Your task to perform on an android device: turn on improve location accuracy Image 0: 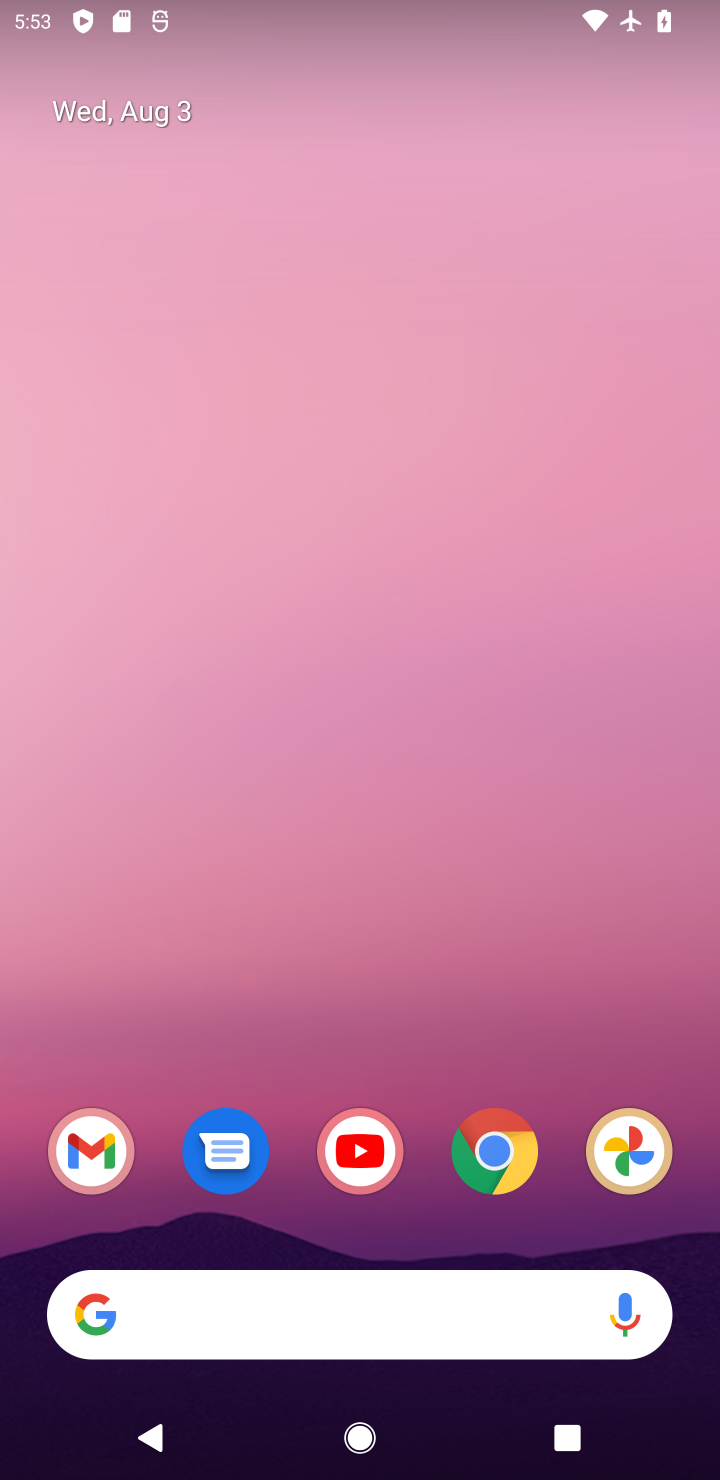
Step 0: drag from (543, 1060) to (326, 166)
Your task to perform on an android device: turn on improve location accuracy Image 1: 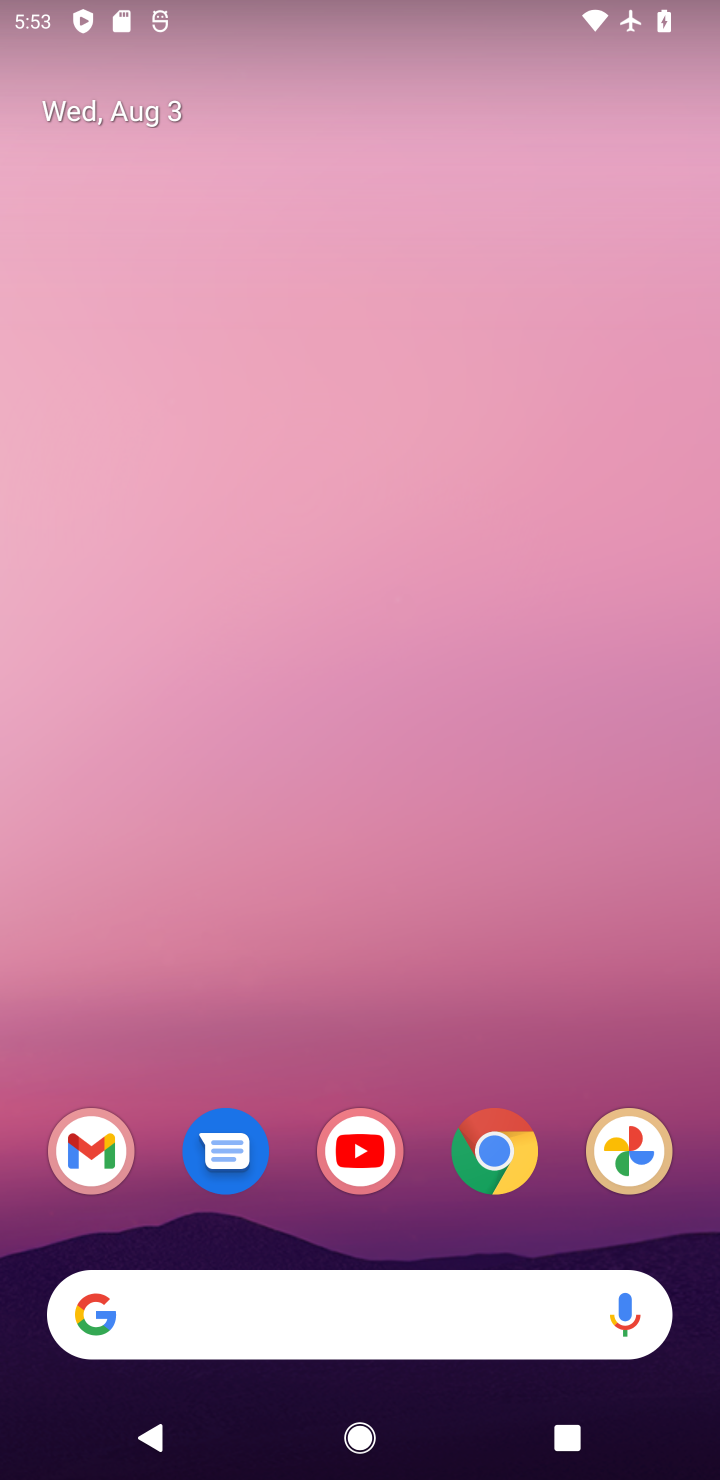
Step 1: drag from (557, 1120) to (516, 336)
Your task to perform on an android device: turn on improve location accuracy Image 2: 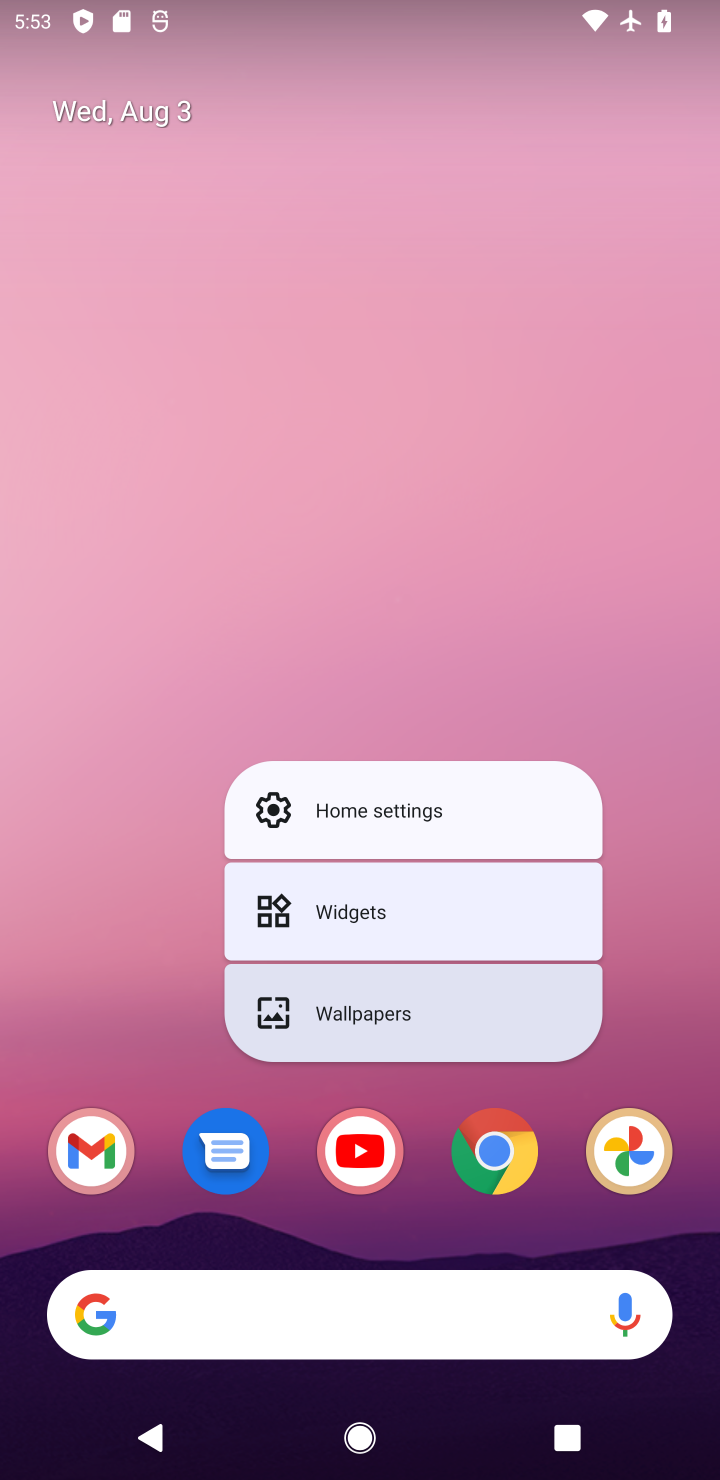
Step 2: drag from (711, 1242) to (601, 820)
Your task to perform on an android device: turn on improve location accuracy Image 3: 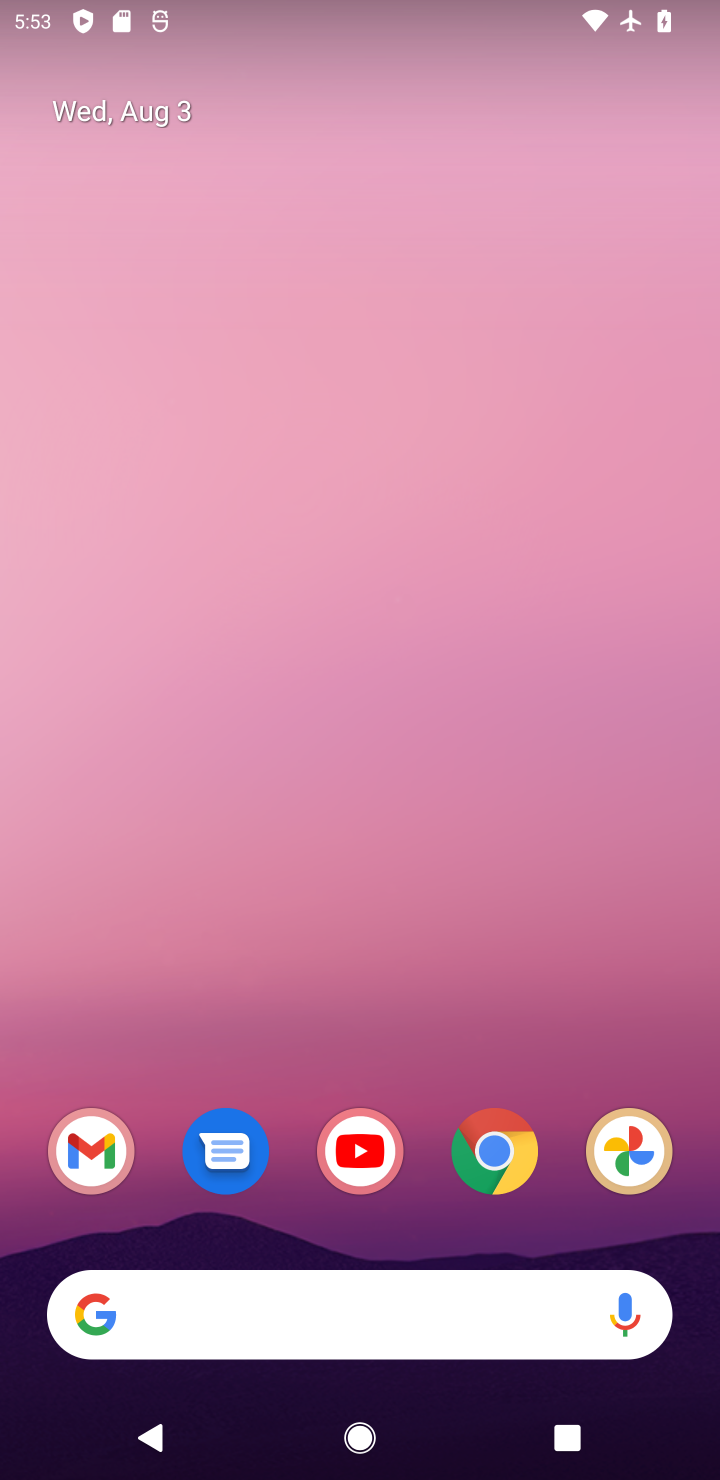
Step 3: drag from (692, 1190) to (581, 611)
Your task to perform on an android device: turn on improve location accuracy Image 4: 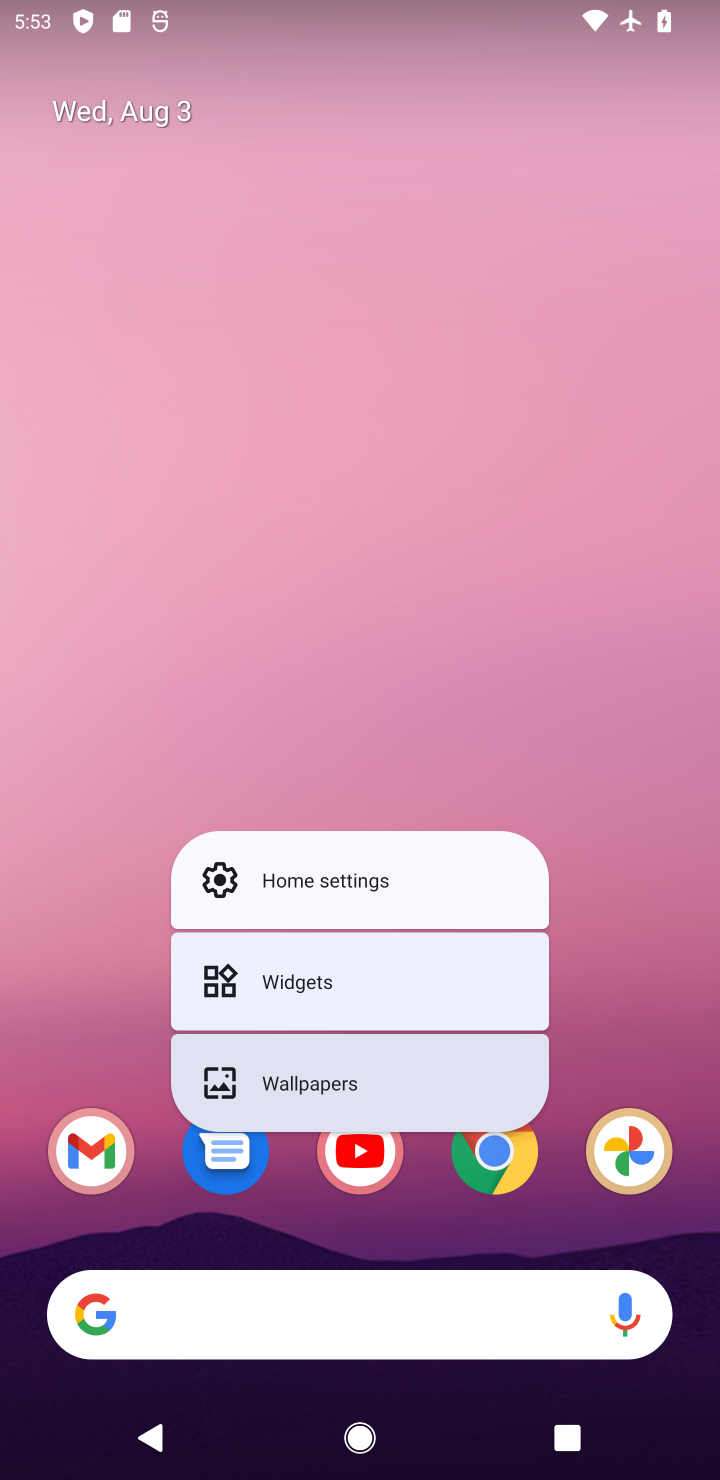
Step 4: click (675, 1021)
Your task to perform on an android device: turn on improve location accuracy Image 5: 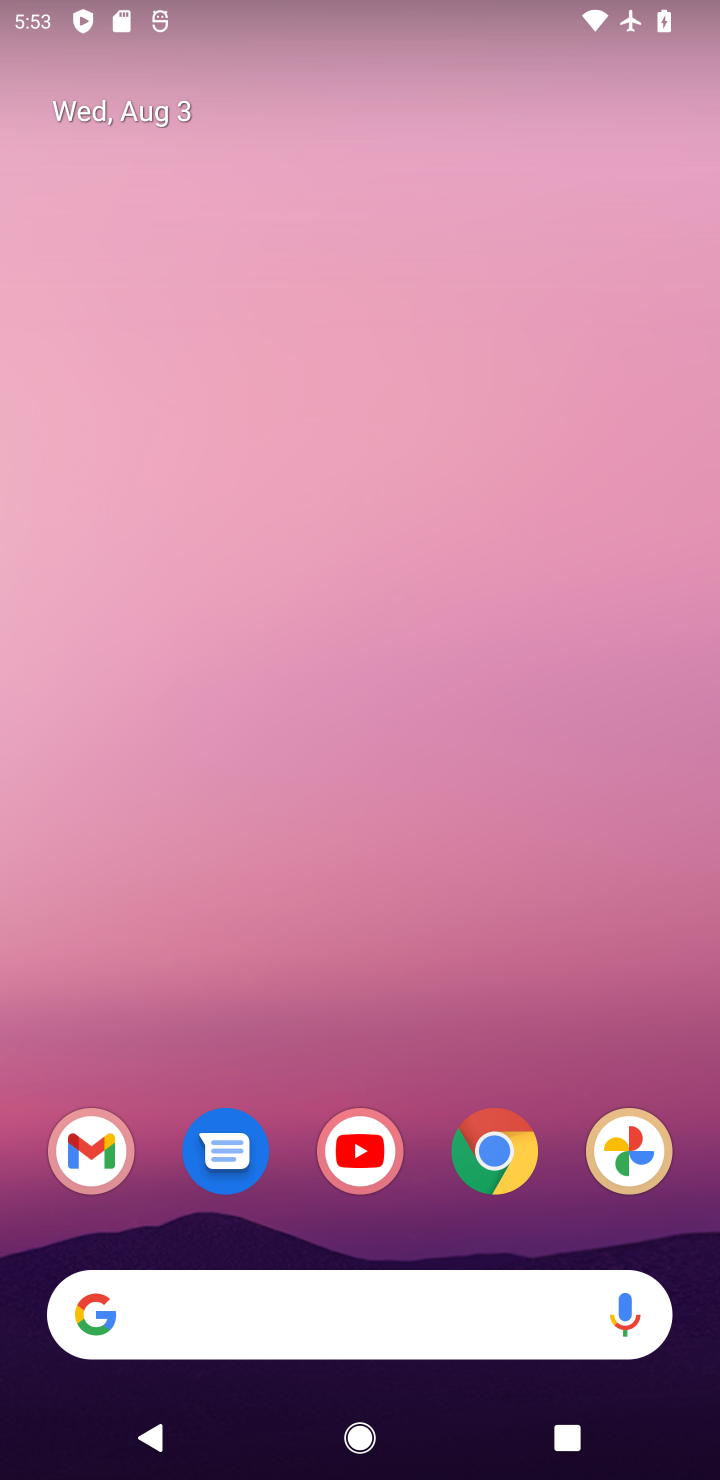
Step 5: drag from (625, 1033) to (601, 793)
Your task to perform on an android device: turn on improve location accuracy Image 6: 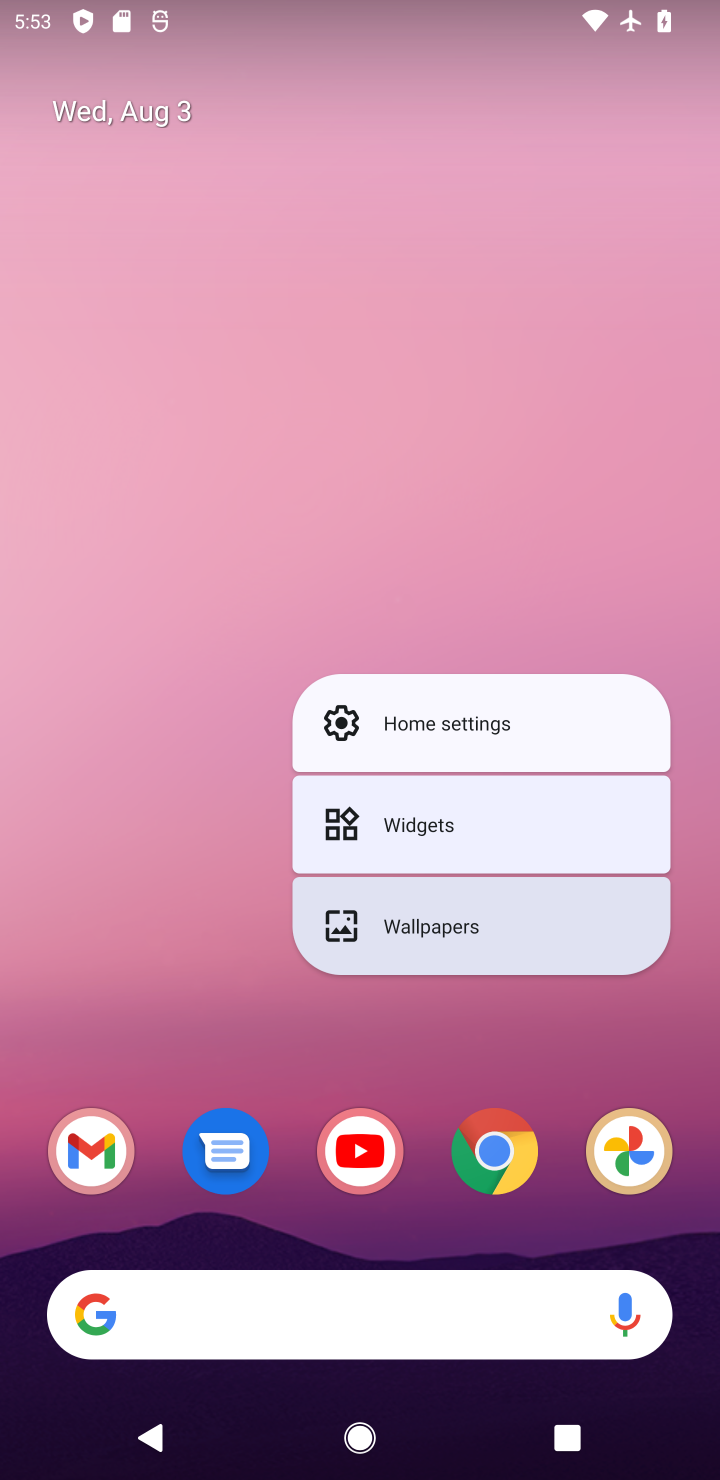
Step 6: drag from (566, 1259) to (246, 186)
Your task to perform on an android device: turn on improve location accuracy Image 7: 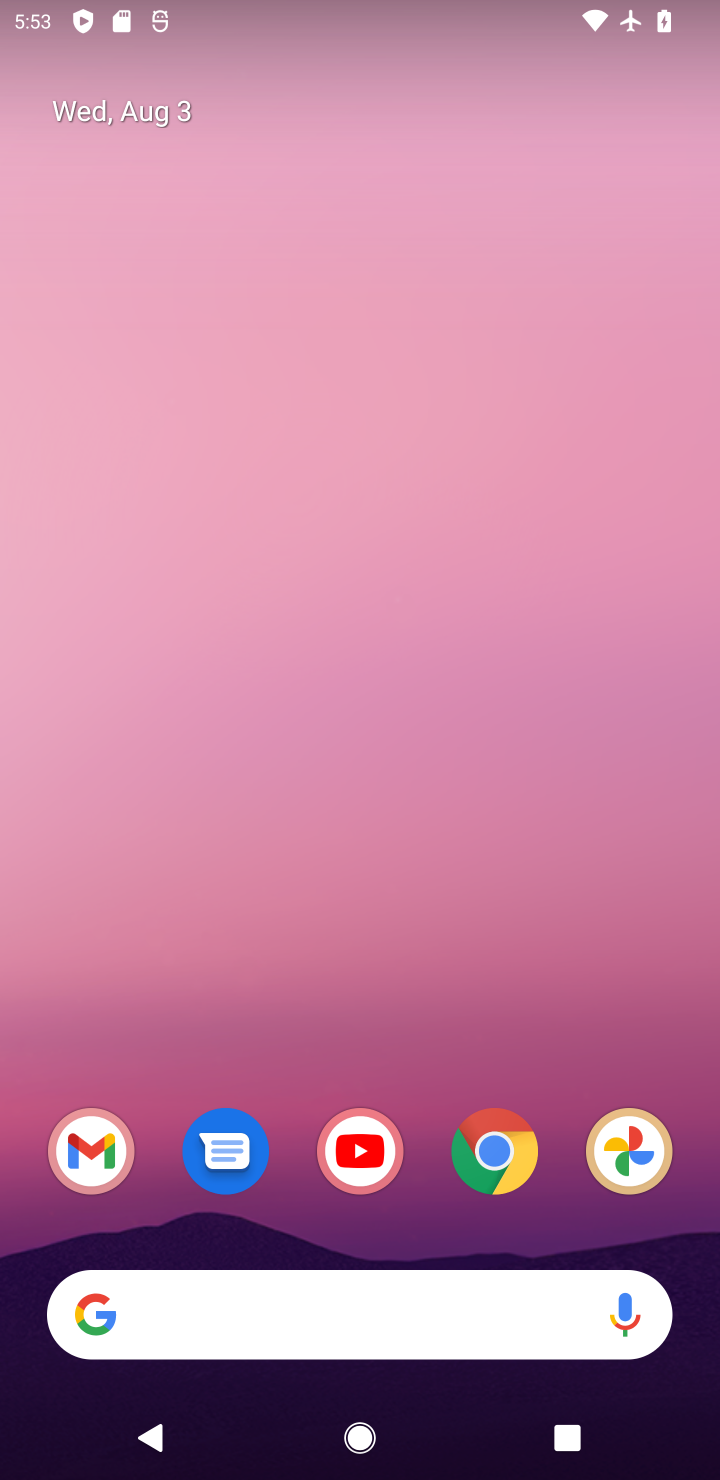
Step 7: drag from (421, 1122) to (291, 90)
Your task to perform on an android device: turn on improve location accuracy Image 8: 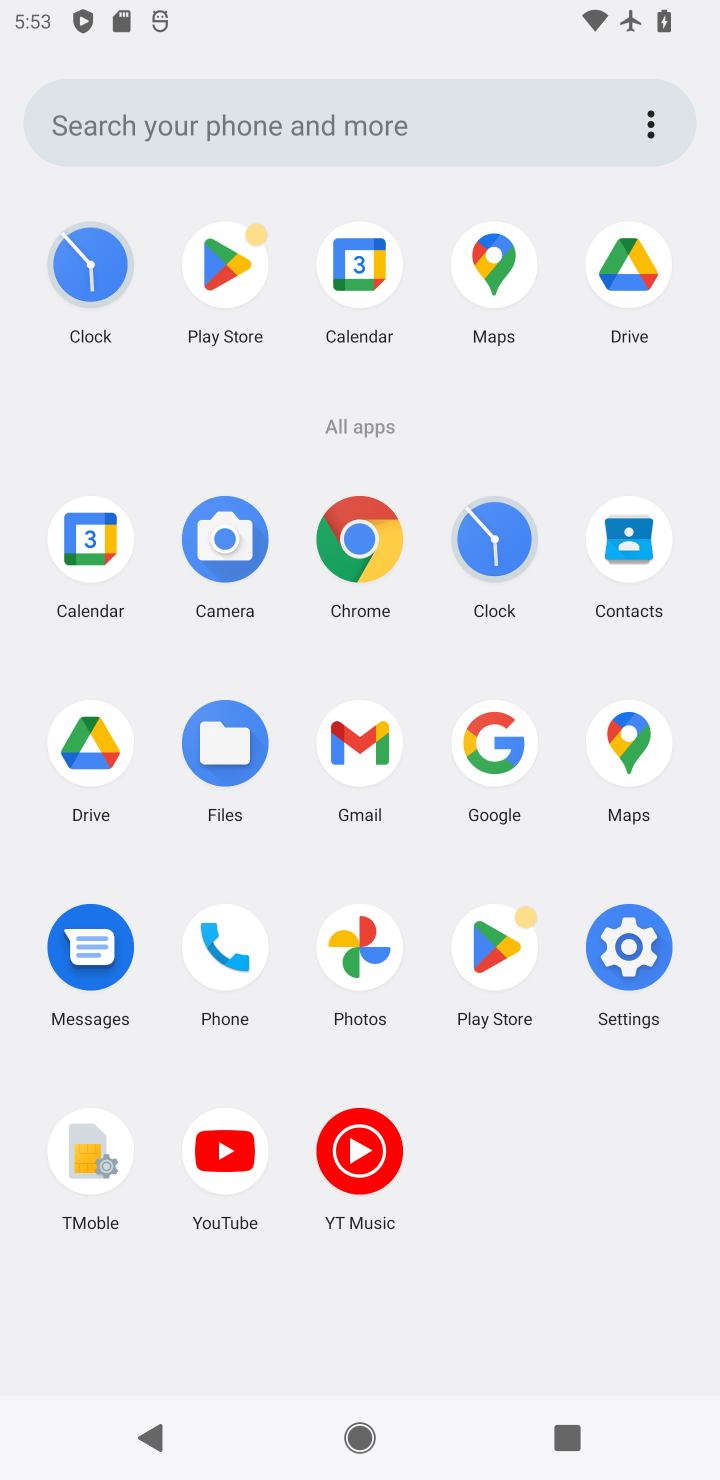
Step 8: click (619, 917)
Your task to perform on an android device: turn on improve location accuracy Image 9: 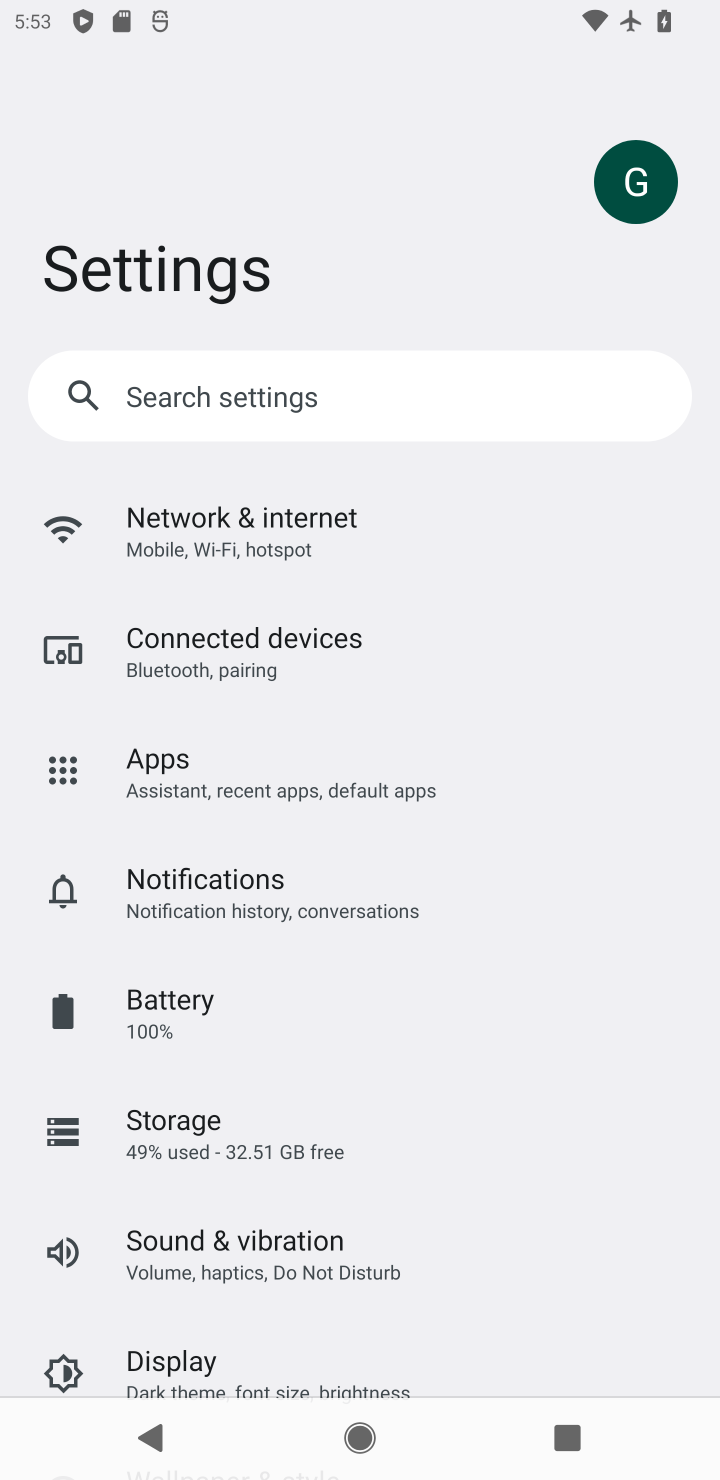
Step 9: drag from (390, 1336) to (342, 611)
Your task to perform on an android device: turn on improve location accuracy Image 10: 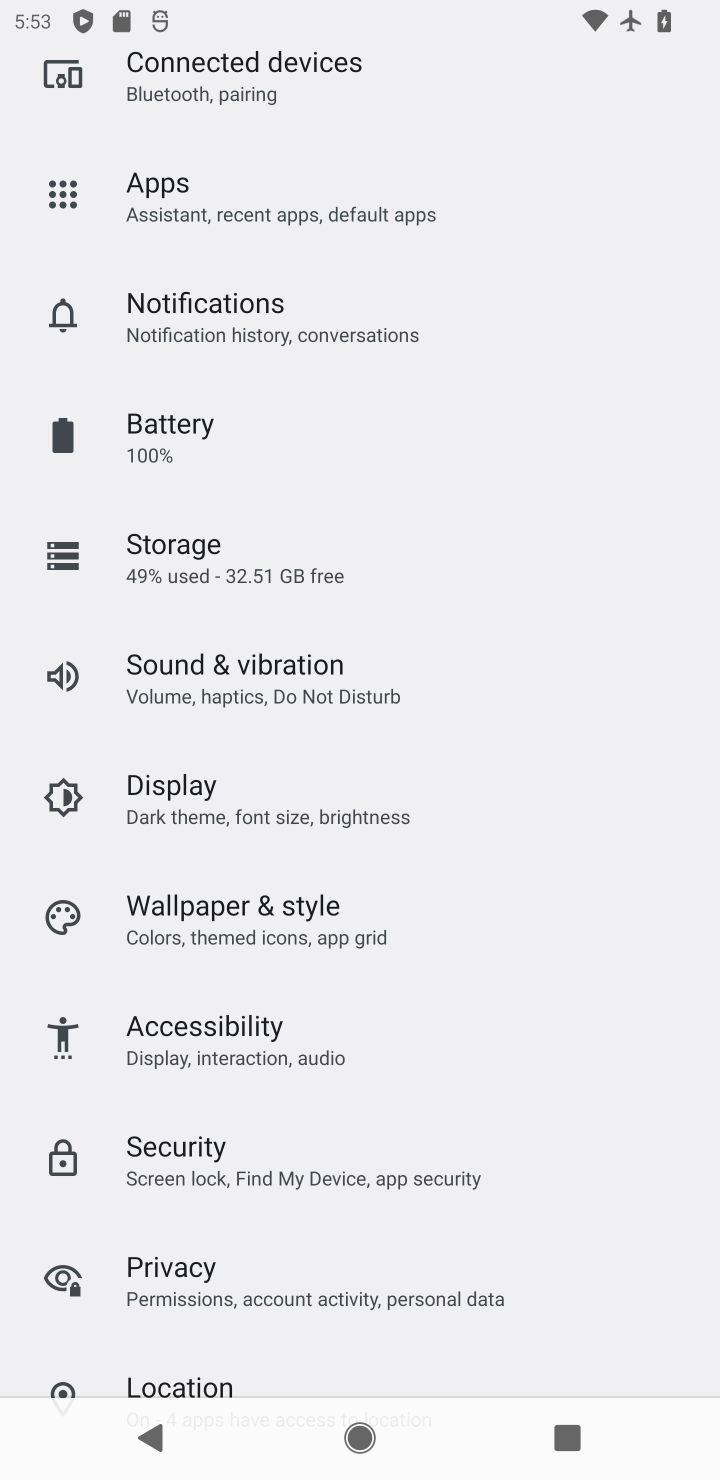
Step 10: click (337, 1375)
Your task to perform on an android device: turn on improve location accuracy Image 11: 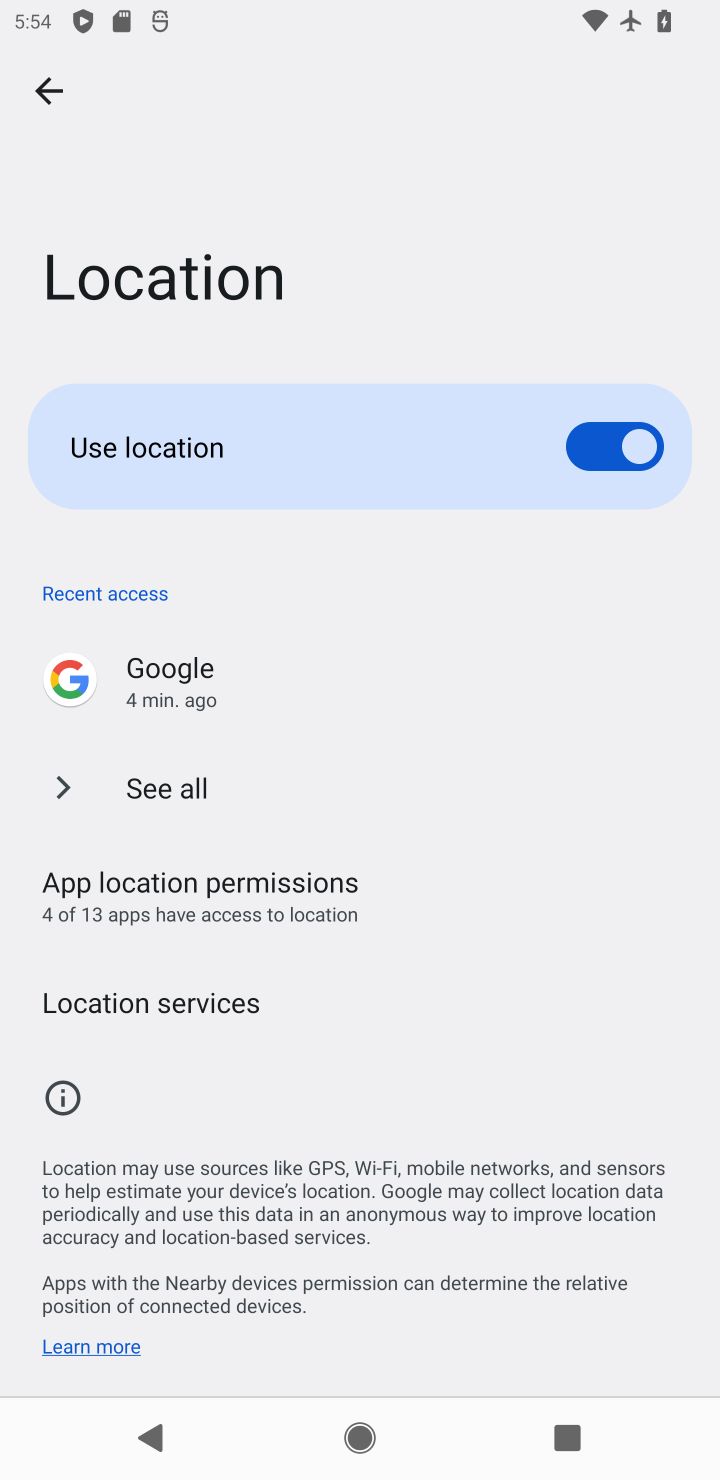
Step 11: drag from (516, 1080) to (402, 294)
Your task to perform on an android device: turn on improve location accuracy Image 12: 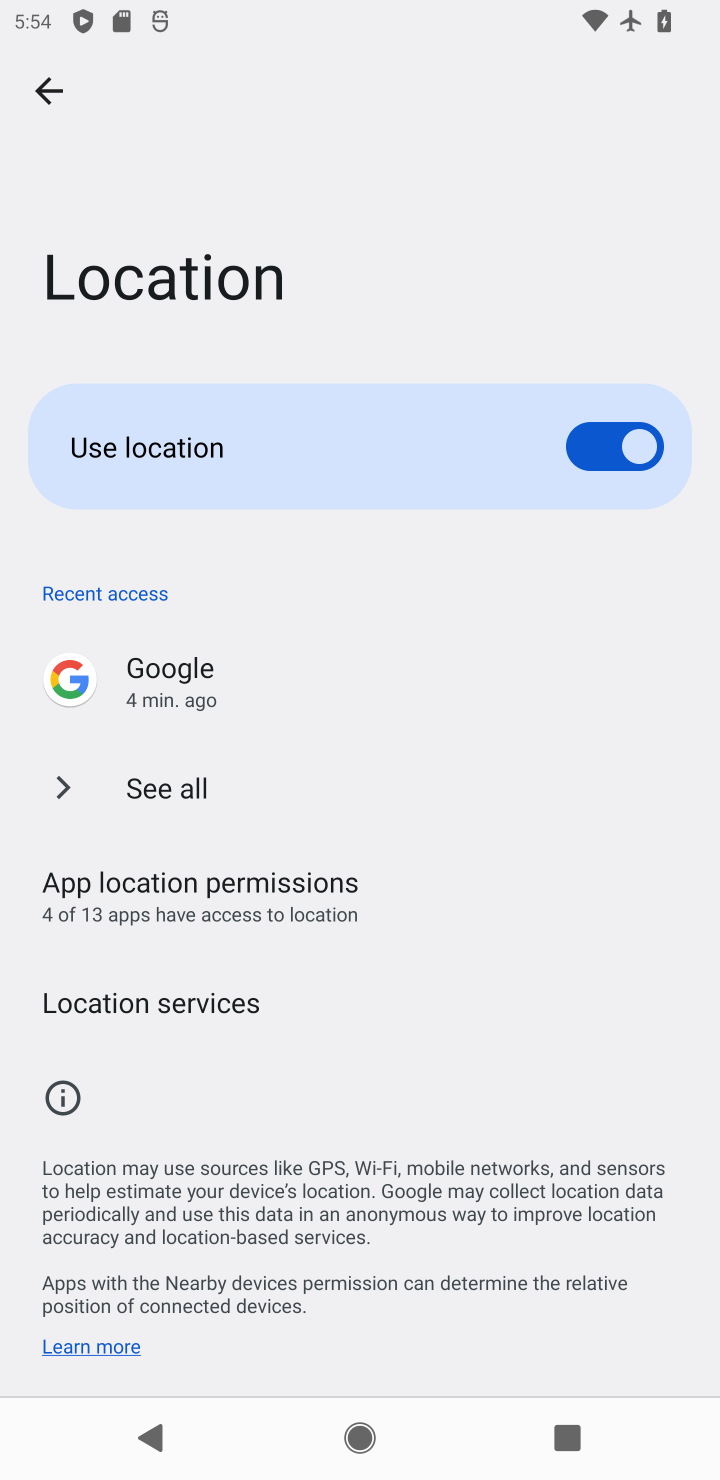
Step 12: click (247, 995)
Your task to perform on an android device: turn on improve location accuracy Image 13: 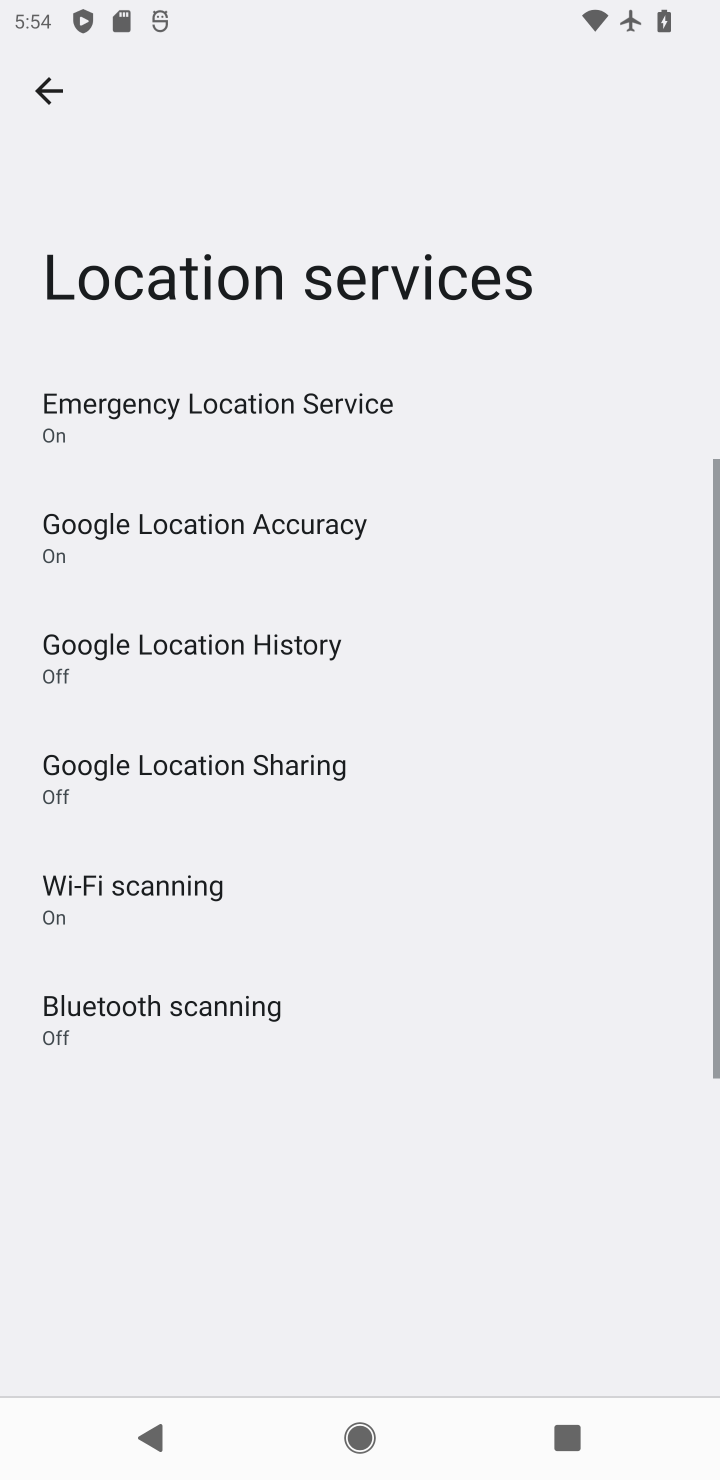
Step 13: click (378, 524)
Your task to perform on an android device: turn on improve location accuracy Image 14: 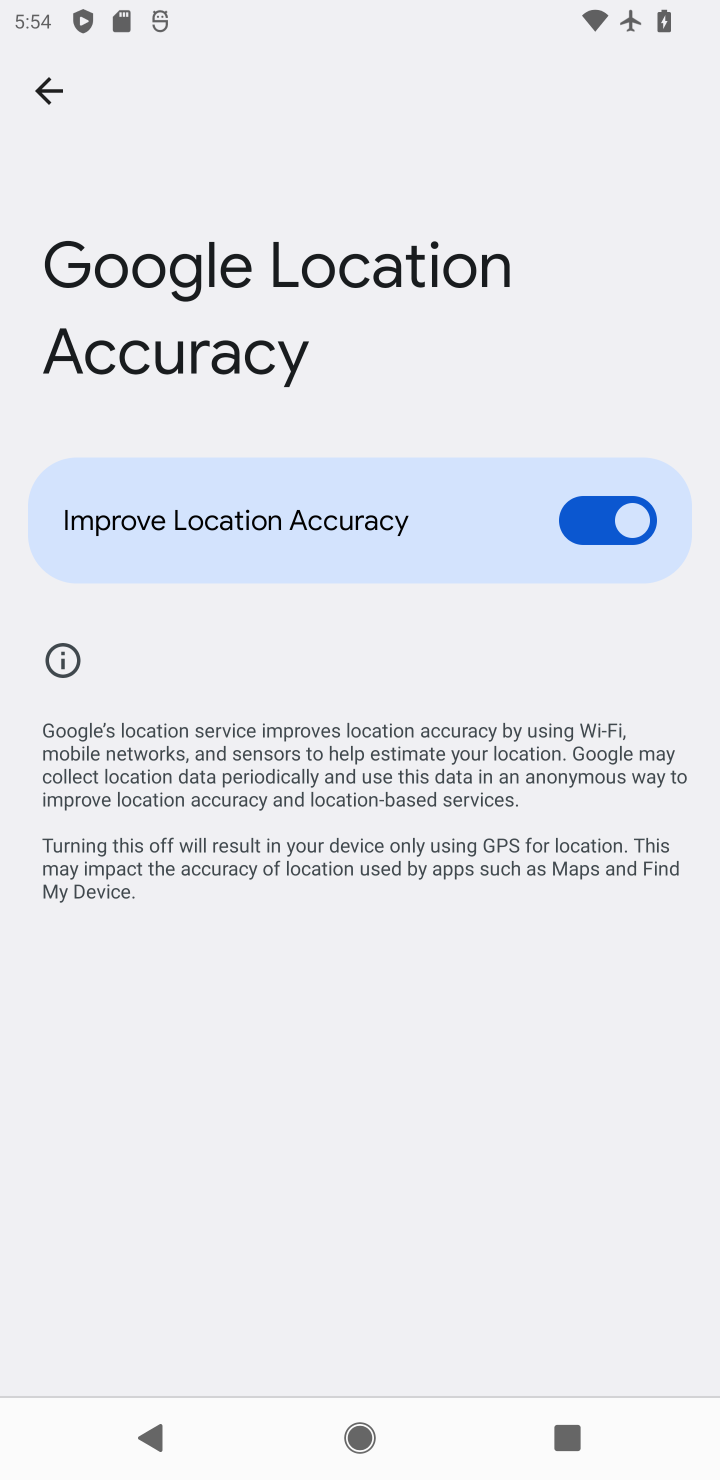
Step 14: task complete